Your task to perform on an android device: Set the phone to "Do not disturb". Image 0: 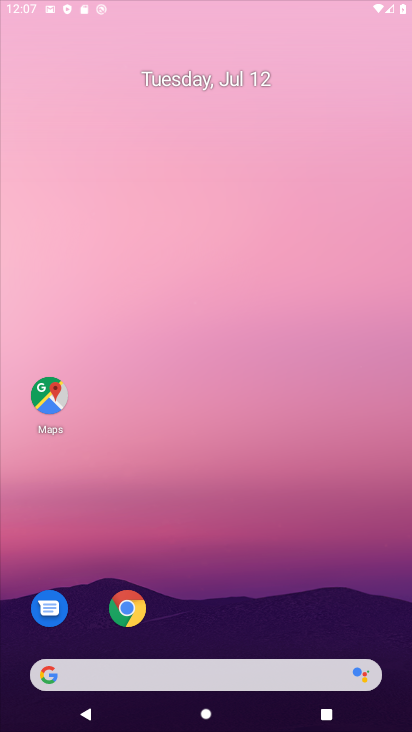
Step 0: drag from (196, 653) to (142, 12)
Your task to perform on an android device: Set the phone to "Do not disturb". Image 1: 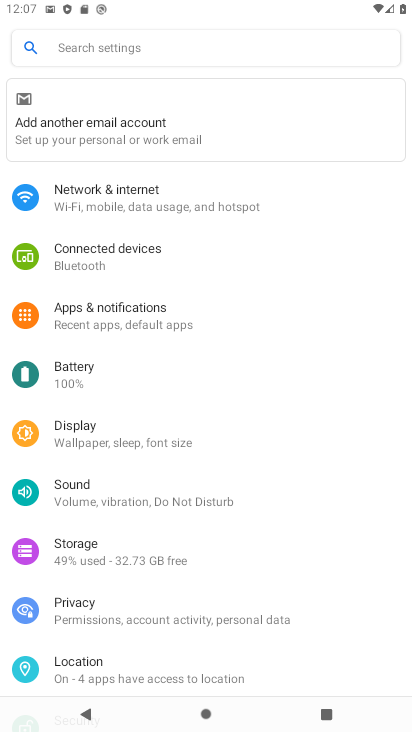
Step 1: drag from (314, 8) to (177, 633)
Your task to perform on an android device: Set the phone to "Do not disturb". Image 2: 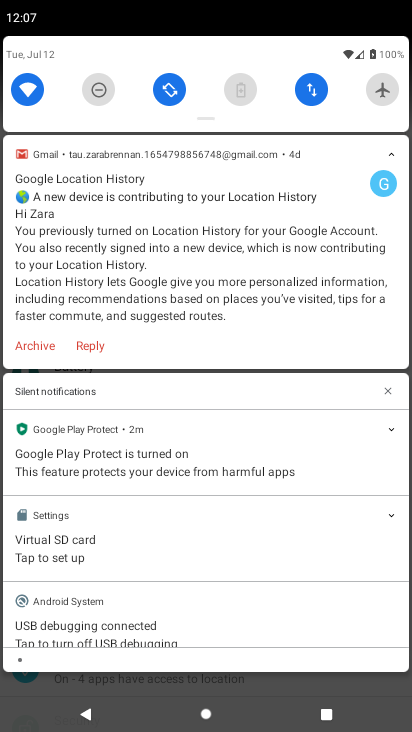
Step 2: click (102, 90)
Your task to perform on an android device: Set the phone to "Do not disturb". Image 3: 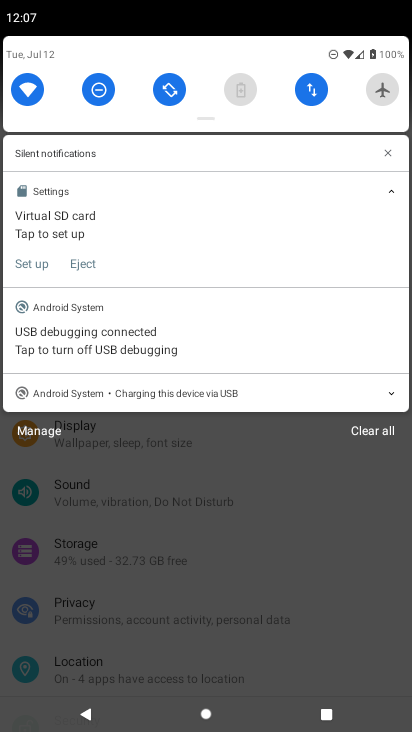
Step 3: task complete